Your task to perform on an android device: Open notification settings Image 0: 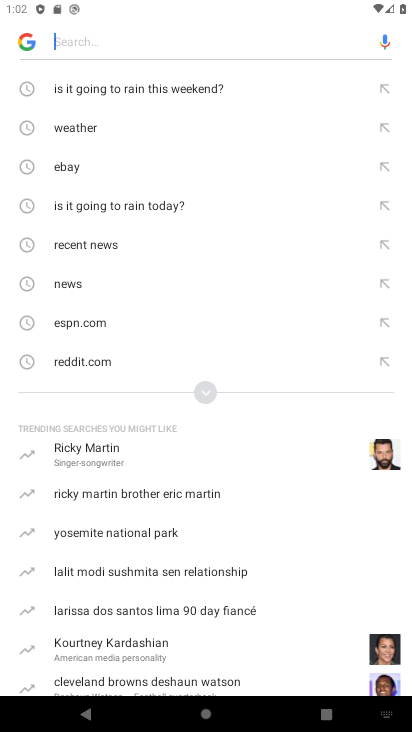
Step 0: press home button
Your task to perform on an android device: Open notification settings Image 1: 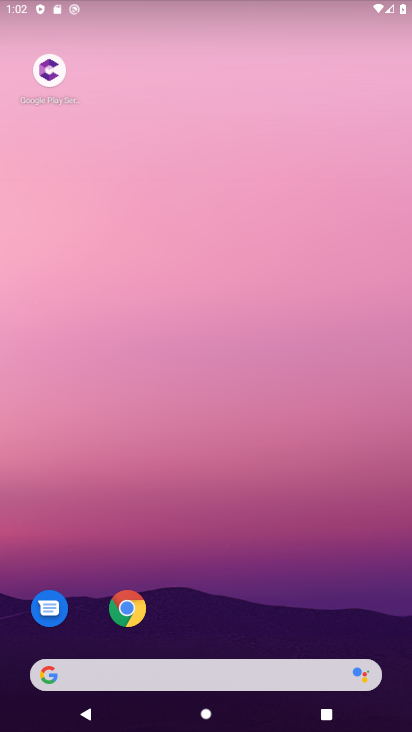
Step 1: drag from (275, 592) to (105, 3)
Your task to perform on an android device: Open notification settings Image 2: 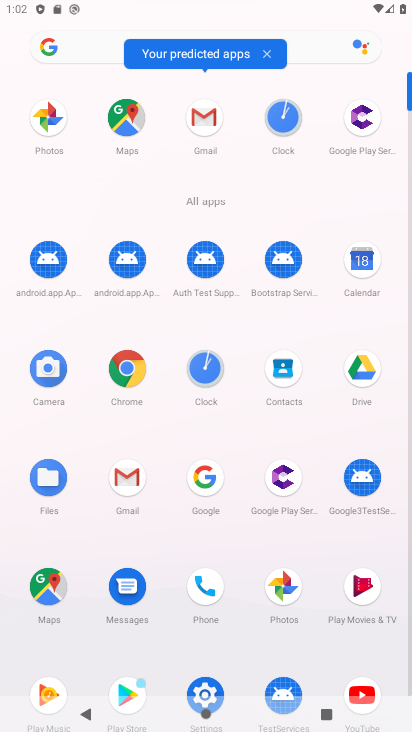
Step 2: click (205, 692)
Your task to perform on an android device: Open notification settings Image 3: 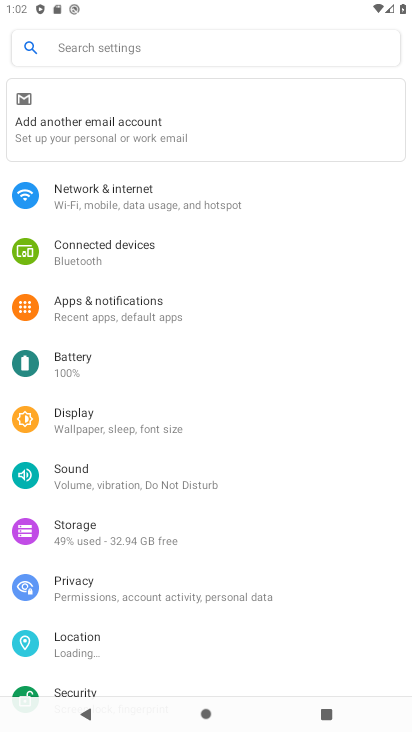
Step 3: click (138, 290)
Your task to perform on an android device: Open notification settings Image 4: 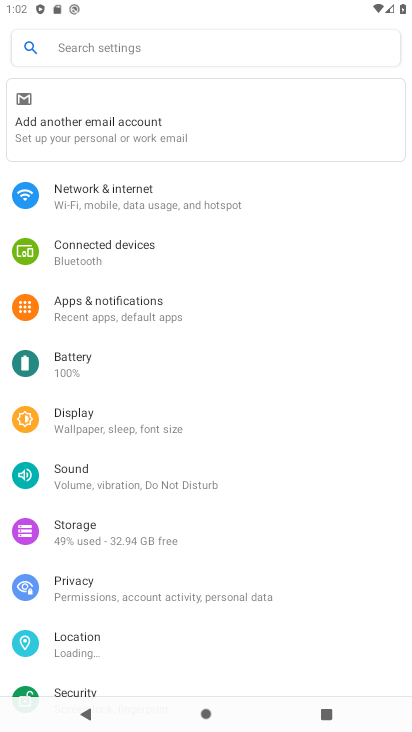
Step 4: click (112, 313)
Your task to perform on an android device: Open notification settings Image 5: 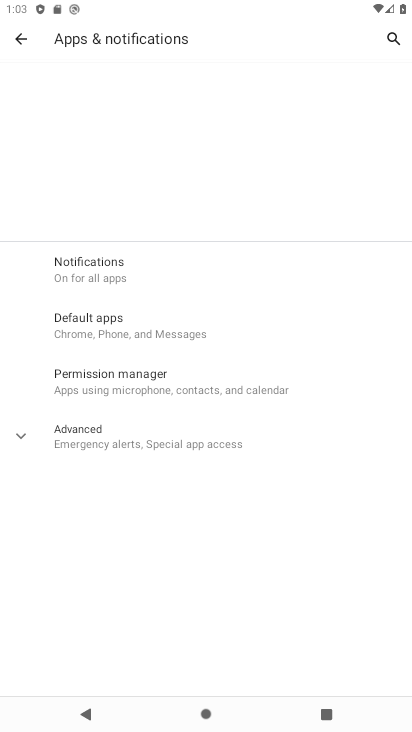
Step 5: click (99, 282)
Your task to perform on an android device: Open notification settings Image 6: 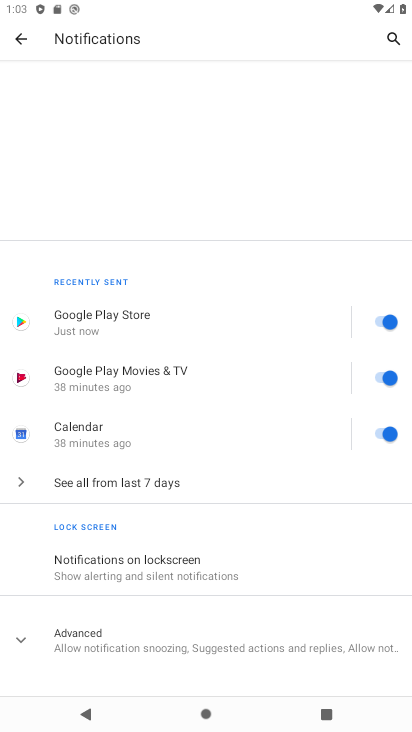
Step 6: click (99, 282)
Your task to perform on an android device: Open notification settings Image 7: 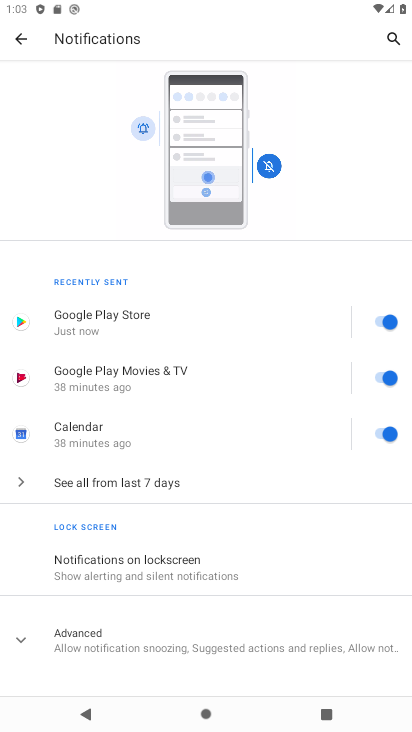
Step 7: task complete